Your task to perform on an android device: Go to notification settings Image 0: 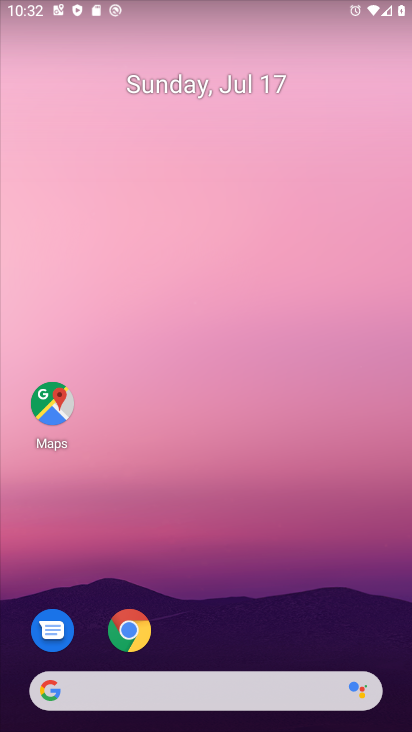
Step 0: drag from (282, 628) to (336, 111)
Your task to perform on an android device: Go to notification settings Image 1: 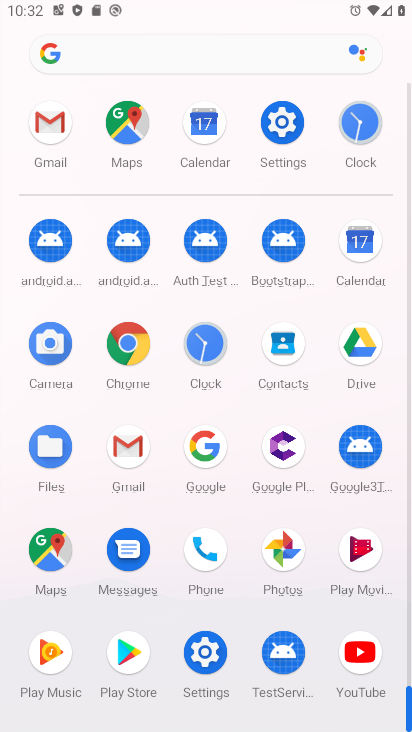
Step 1: click (285, 120)
Your task to perform on an android device: Go to notification settings Image 2: 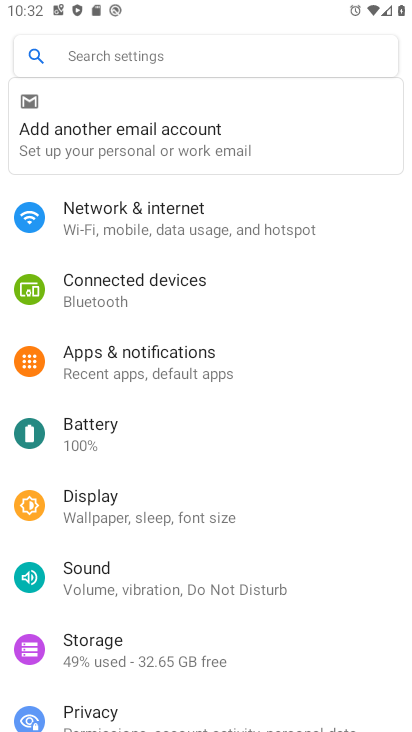
Step 2: drag from (333, 401) to (347, 326)
Your task to perform on an android device: Go to notification settings Image 3: 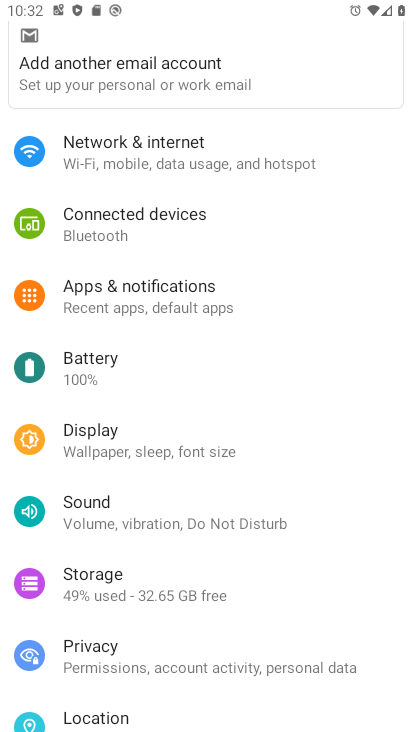
Step 3: drag from (335, 472) to (343, 359)
Your task to perform on an android device: Go to notification settings Image 4: 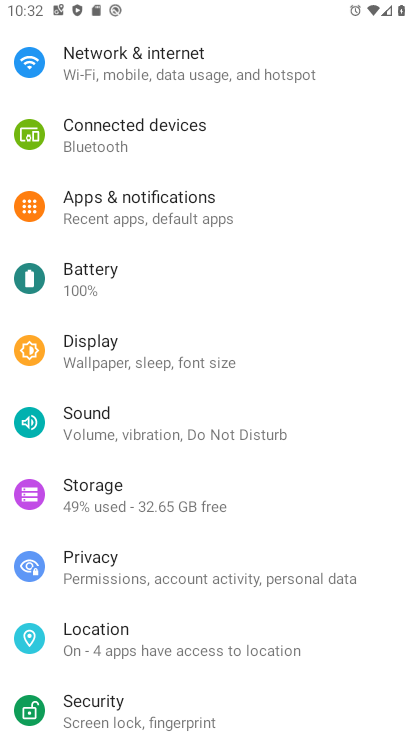
Step 4: drag from (322, 510) to (341, 400)
Your task to perform on an android device: Go to notification settings Image 5: 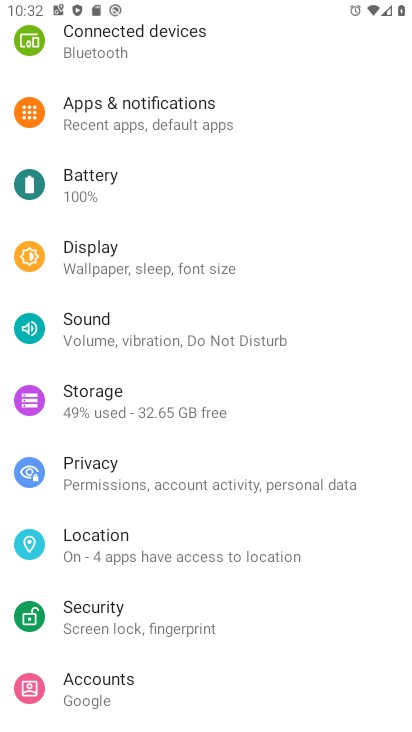
Step 5: drag from (345, 468) to (351, 318)
Your task to perform on an android device: Go to notification settings Image 6: 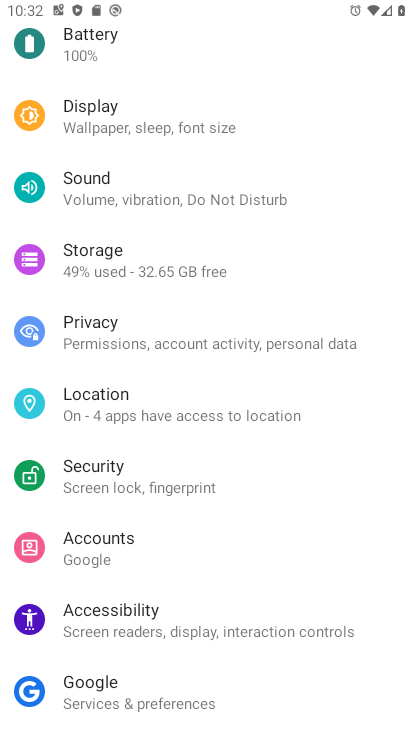
Step 6: drag from (344, 494) to (348, 409)
Your task to perform on an android device: Go to notification settings Image 7: 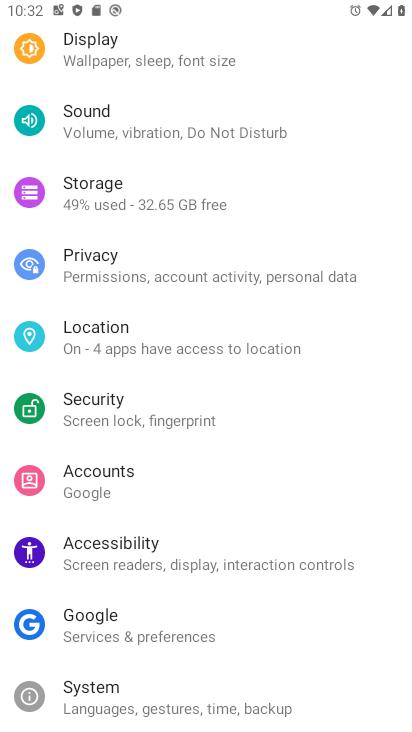
Step 7: drag from (338, 604) to (361, 453)
Your task to perform on an android device: Go to notification settings Image 8: 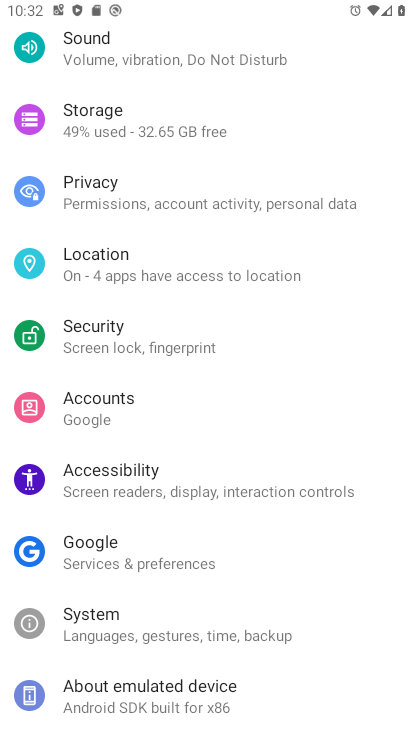
Step 8: drag from (356, 366) to (348, 451)
Your task to perform on an android device: Go to notification settings Image 9: 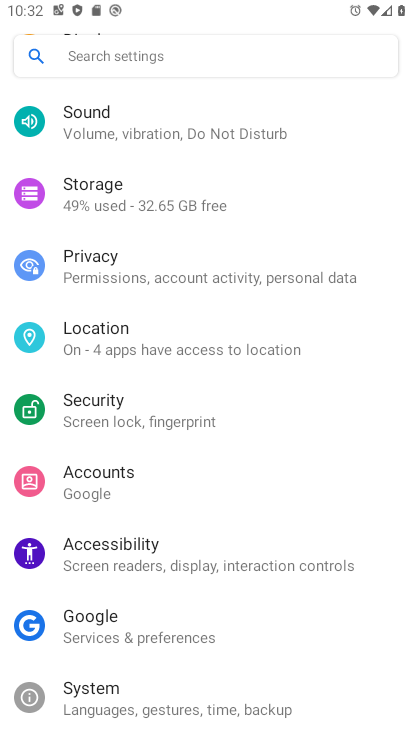
Step 9: drag from (359, 321) to (347, 457)
Your task to perform on an android device: Go to notification settings Image 10: 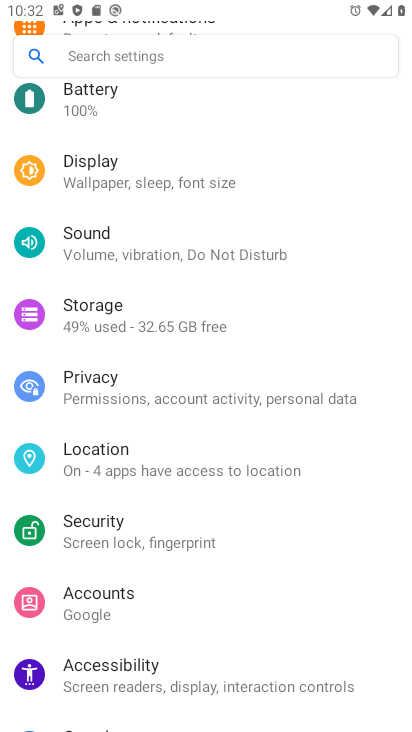
Step 10: drag from (355, 271) to (352, 420)
Your task to perform on an android device: Go to notification settings Image 11: 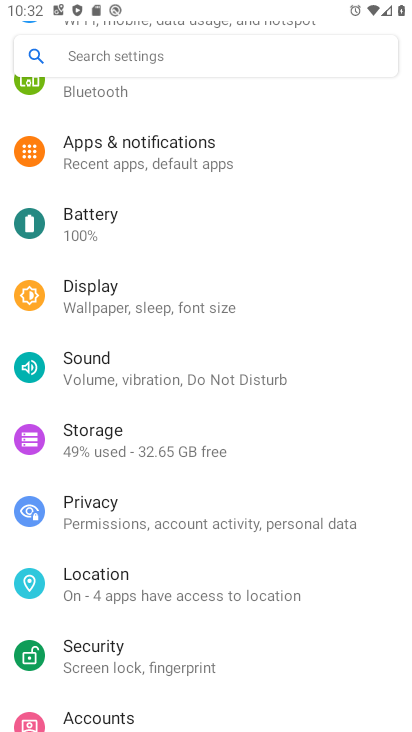
Step 11: drag from (349, 265) to (347, 377)
Your task to perform on an android device: Go to notification settings Image 12: 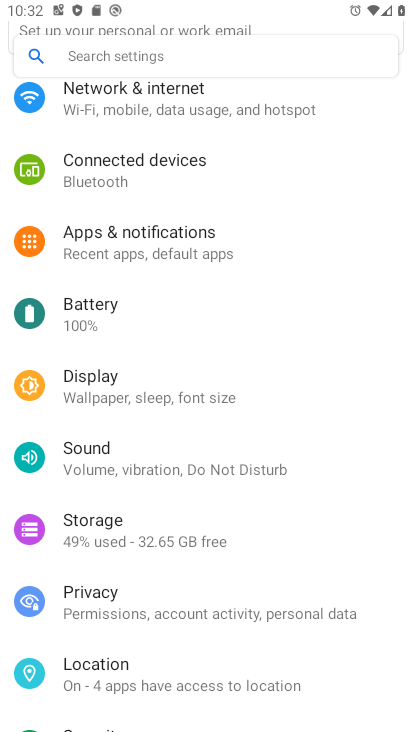
Step 12: drag from (349, 213) to (348, 341)
Your task to perform on an android device: Go to notification settings Image 13: 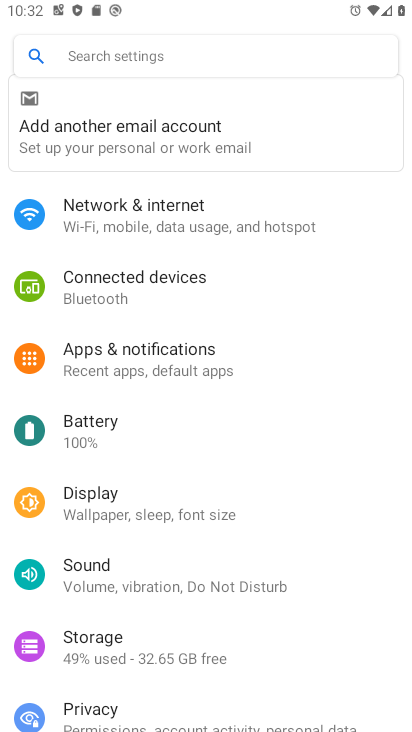
Step 13: drag from (345, 219) to (341, 366)
Your task to perform on an android device: Go to notification settings Image 14: 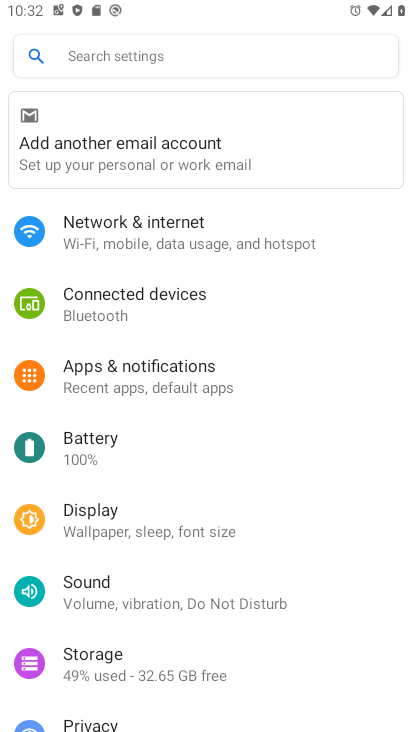
Step 14: click (229, 368)
Your task to perform on an android device: Go to notification settings Image 15: 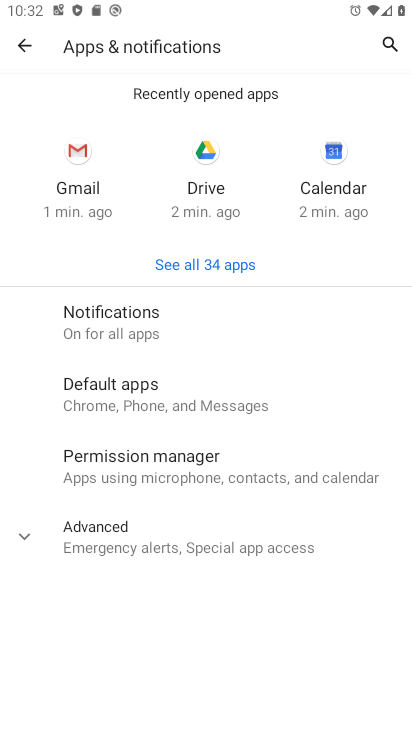
Step 15: click (143, 323)
Your task to perform on an android device: Go to notification settings Image 16: 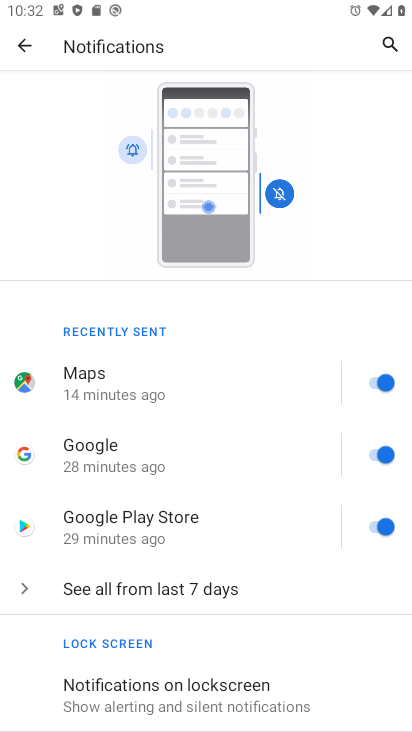
Step 16: task complete